Your task to perform on an android device: Turn off the flashlight Image 0: 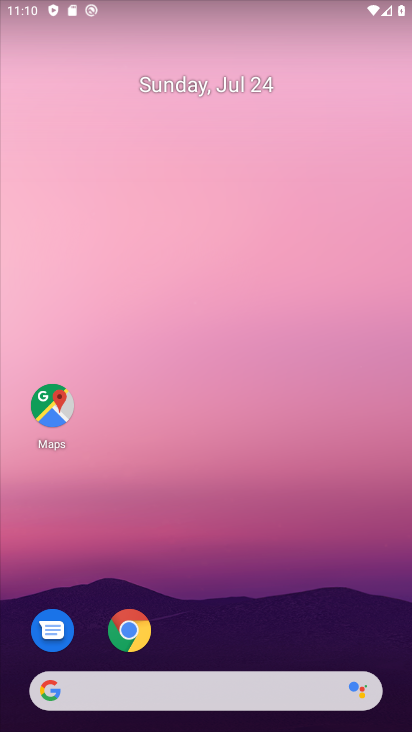
Step 0: drag from (244, 576) to (109, 4)
Your task to perform on an android device: Turn off the flashlight Image 1: 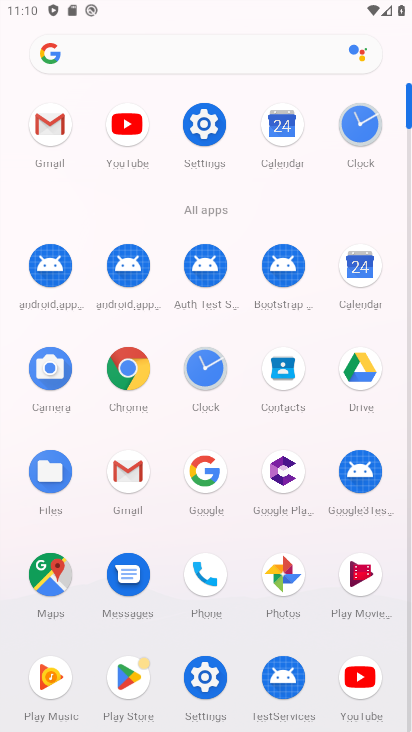
Step 1: click (207, 119)
Your task to perform on an android device: Turn off the flashlight Image 2: 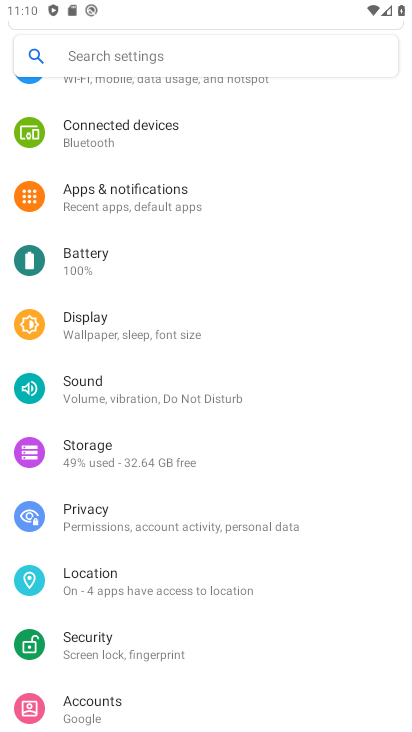
Step 2: task complete